Your task to perform on an android device: turn on translation in the chrome app Image 0: 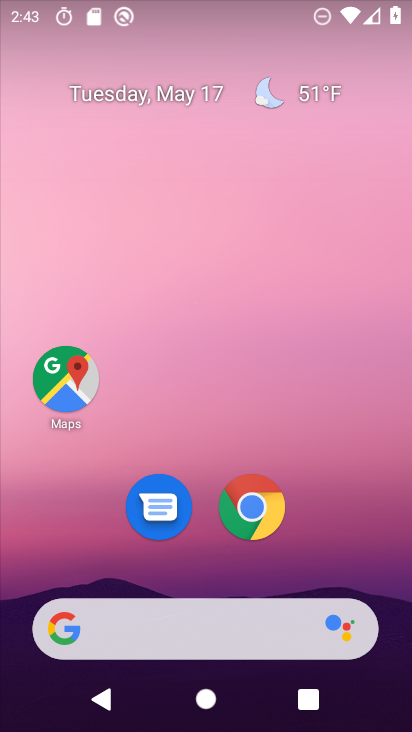
Step 0: click (250, 510)
Your task to perform on an android device: turn on translation in the chrome app Image 1: 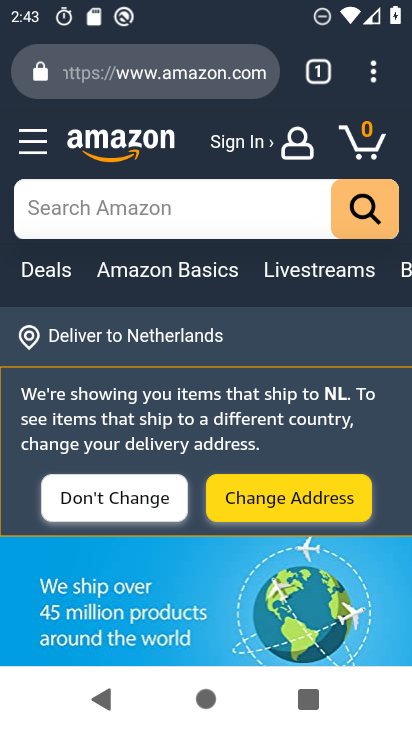
Step 1: click (365, 72)
Your task to perform on an android device: turn on translation in the chrome app Image 2: 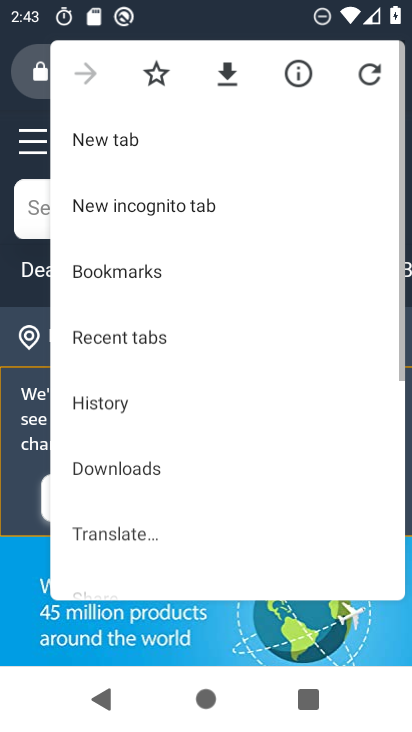
Step 2: click (365, 72)
Your task to perform on an android device: turn on translation in the chrome app Image 3: 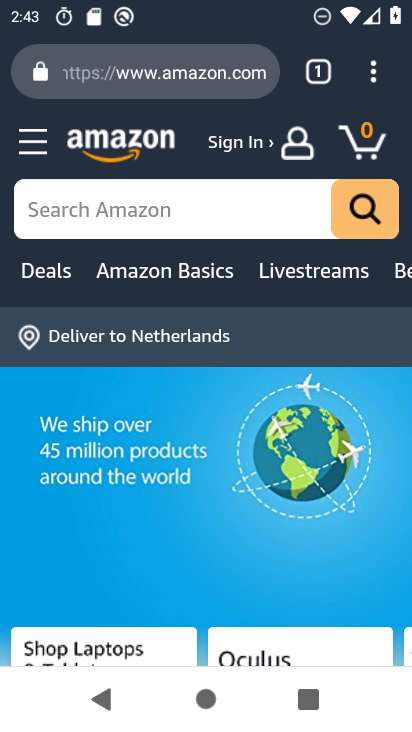
Step 3: click (365, 72)
Your task to perform on an android device: turn on translation in the chrome app Image 4: 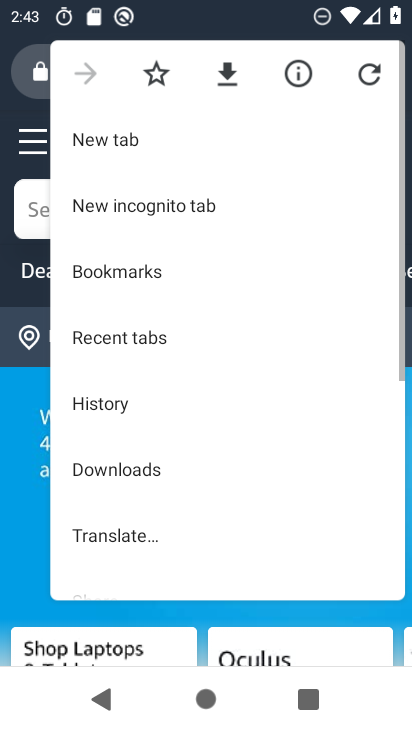
Step 4: drag from (257, 487) to (266, 170)
Your task to perform on an android device: turn on translation in the chrome app Image 5: 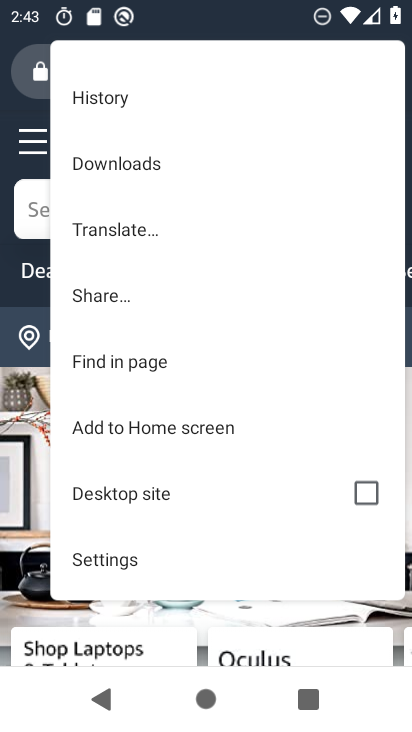
Step 5: click (129, 566)
Your task to perform on an android device: turn on translation in the chrome app Image 6: 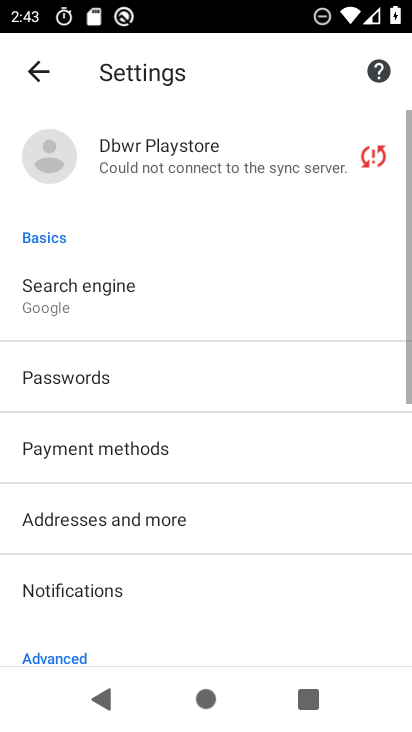
Step 6: drag from (148, 540) to (262, 190)
Your task to perform on an android device: turn on translation in the chrome app Image 7: 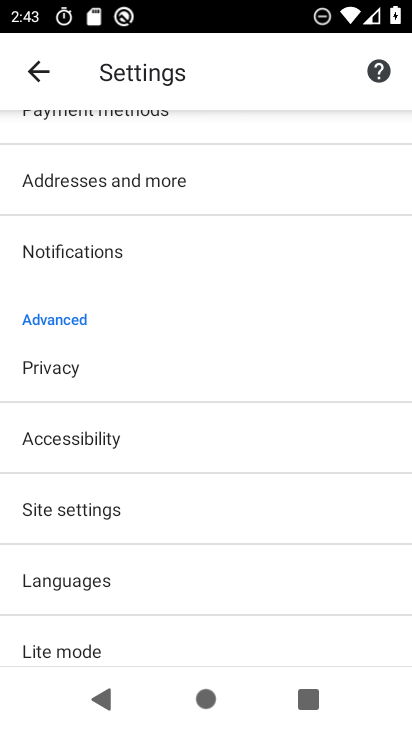
Step 7: click (92, 595)
Your task to perform on an android device: turn on translation in the chrome app Image 8: 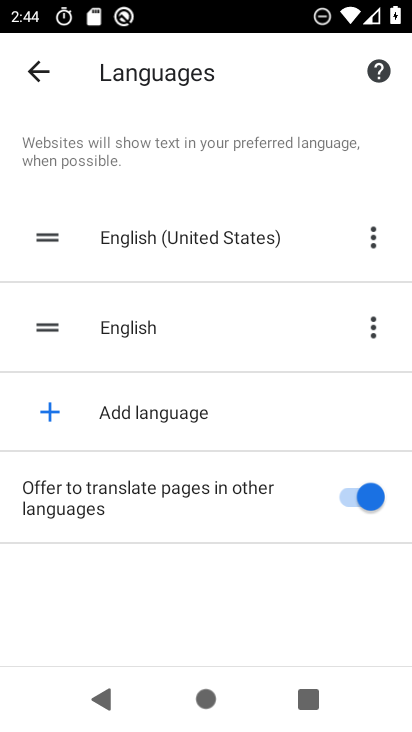
Step 8: task complete